Your task to perform on an android device: turn notification dots on Image 0: 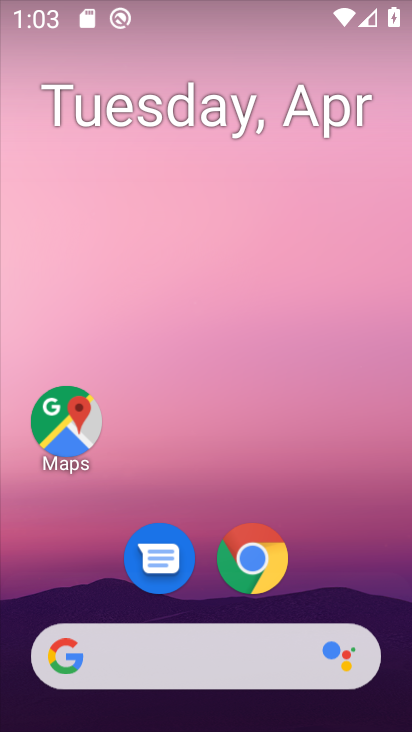
Step 0: drag from (237, 610) to (308, 221)
Your task to perform on an android device: turn notification dots on Image 1: 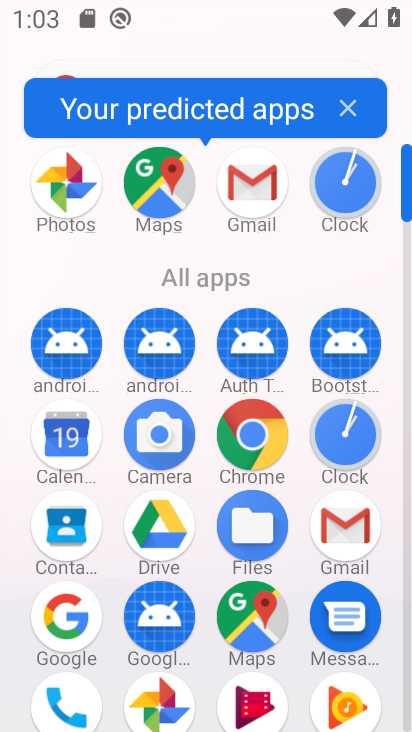
Step 1: drag from (204, 531) to (260, 0)
Your task to perform on an android device: turn notification dots on Image 2: 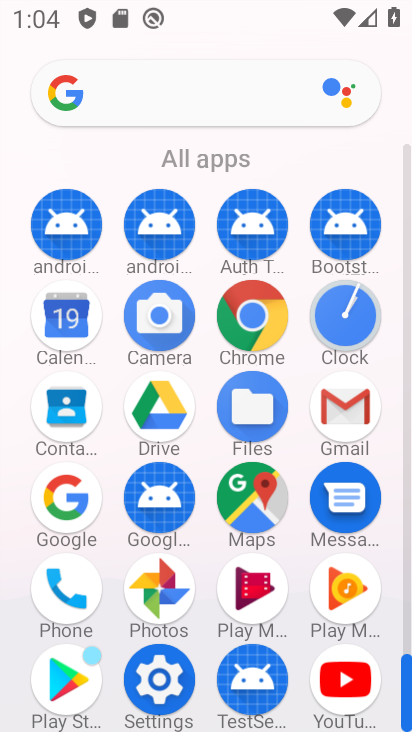
Step 2: click (160, 662)
Your task to perform on an android device: turn notification dots on Image 3: 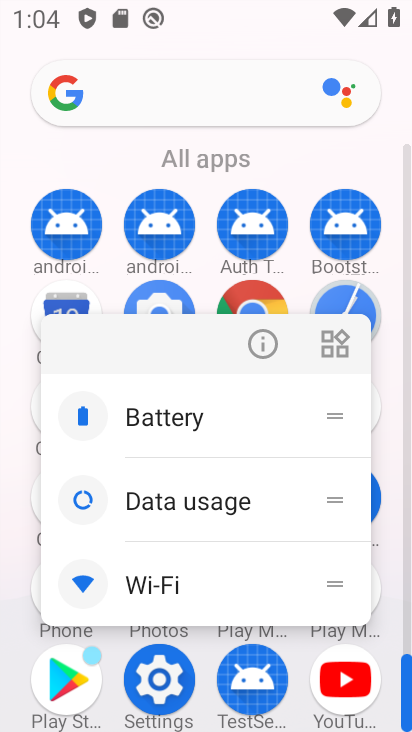
Step 3: click (268, 348)
Your task to perform on an android device: turn notification dots on Image 4: 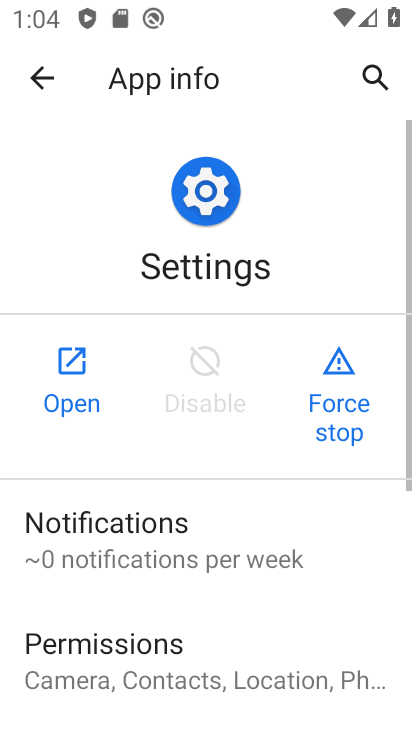
Step 4: click (85, 390)
Your task to perform on an android device: turn notification dots on Image 5: 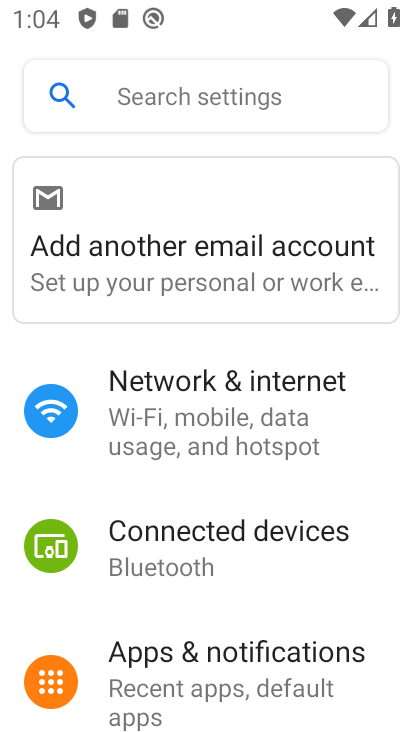
Step 5: click (216, 663)
Your task to perform on an android device: turn notification dots on Image 6: 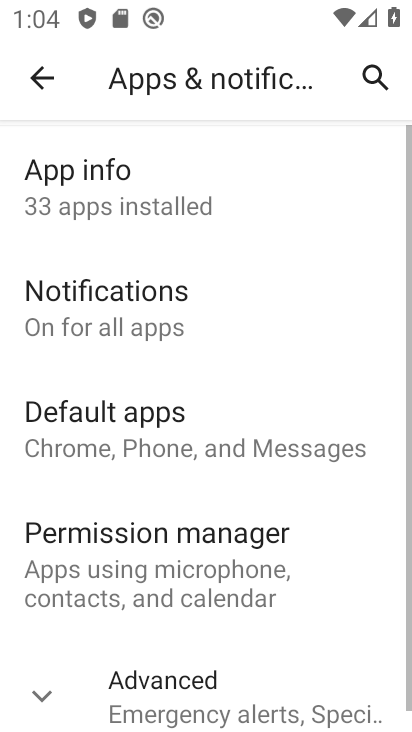
Step 6: drag from (162, 576) to (223, 307)
Your task to perform on an android device: turn notification dots on Image 7: 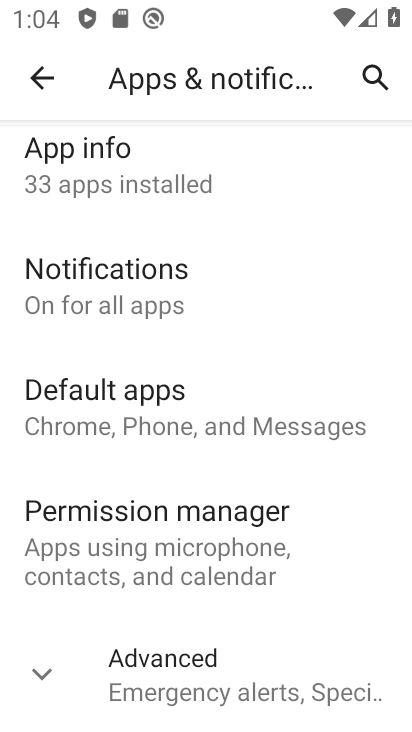
Step 7: drag from (236, 556) to (321, 288)
Your task to perform on an android device: turn notification dots on Image 8: 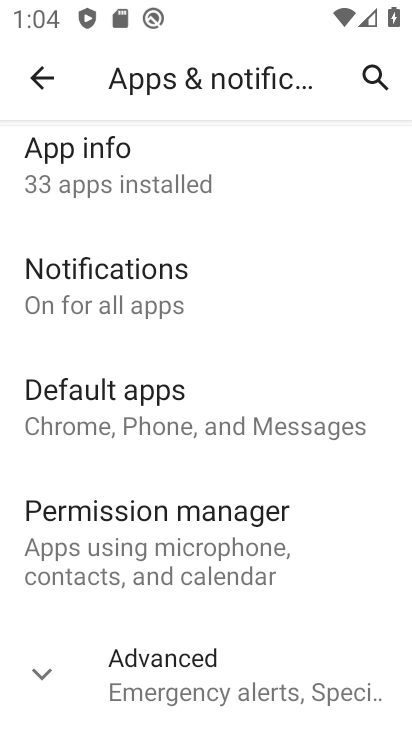
Step 8: click (183, 669)
Your task to perform on an android device: turn notification dots on Image 9: 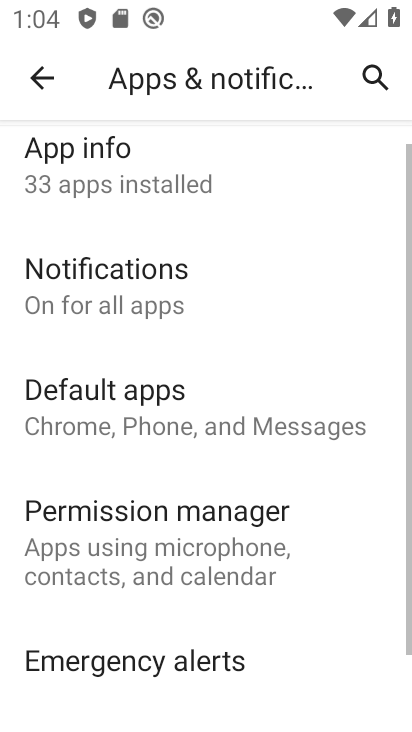
Step 9: drag from (218, 383) to (261, 722)
Your task to perform on an android device: turn notification dots on Image 10: 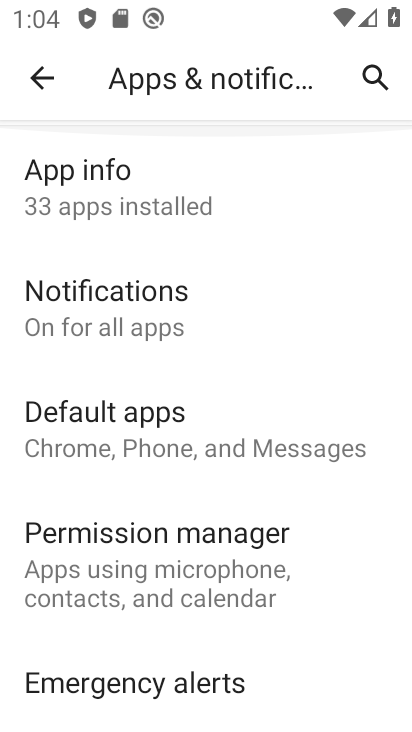
Step 10: drag from (248, 553) to (335, 43)
Your task to perform on an android device: turn notification dots on Image 11: 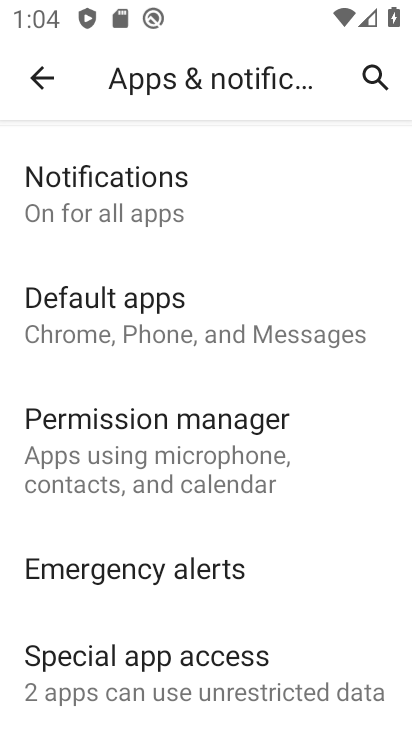
Step 11: click (165, 197)
Your task to perform on an android device: turn notification dots on Image 12: 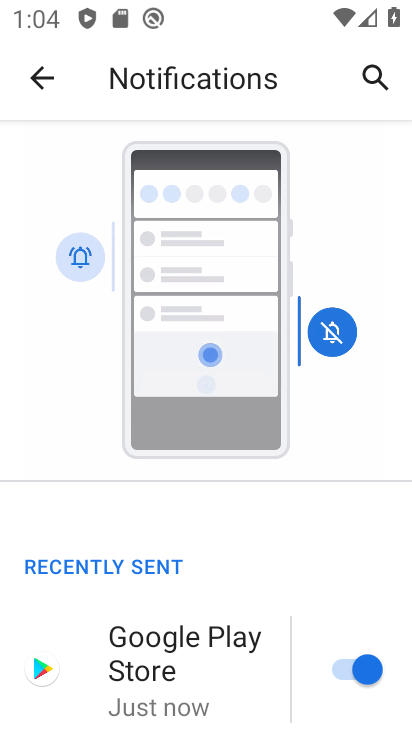
Step 12: drag from (228, 524) to (308, 13)
Your task to perform on an android device: turn notification dots on Image 13: 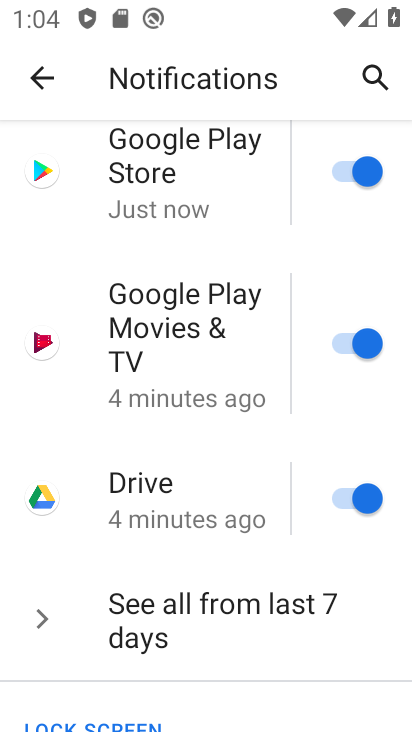
Step 13: drag from (235, 614) to (275, 184)
Your task to perform on an android device: turn notification dots on Image 14: 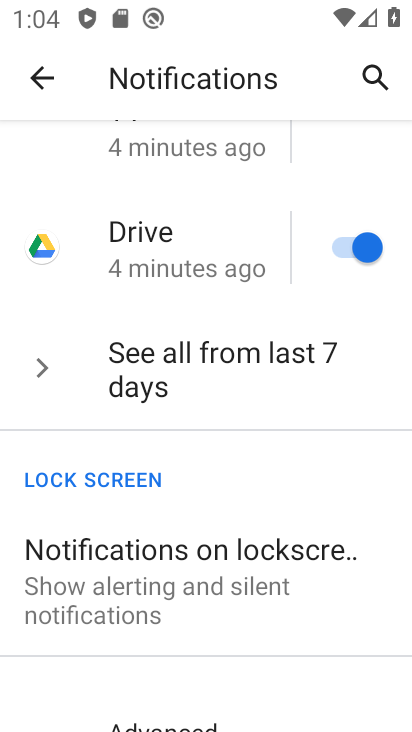
Step 14: drag from (238, 642) to (325, 151)
Your task to perform on an android device: turn notification dots on Image 15: 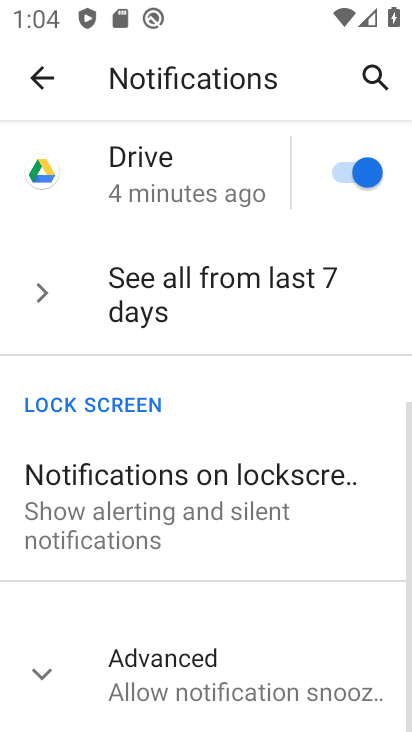
Step 15: drag from (236, 617) to (352, 32)
Your task to perform on an android device: turn notification dots on Image 16: 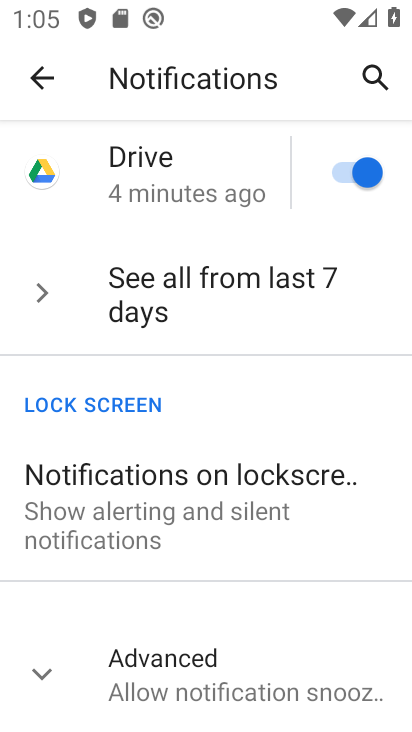
Step 16: click (189, 681)
Your task to perform on an android device: turn notification dots on Image 17: 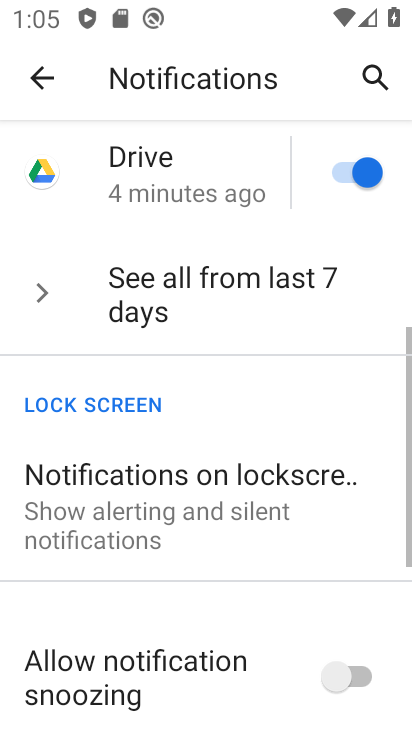
Step 17: task complete